Your task to perform on an android device: Clear all items from cart on target. Search for "razer blade" on target, select the first entry, and add it to the cart. Image 0: 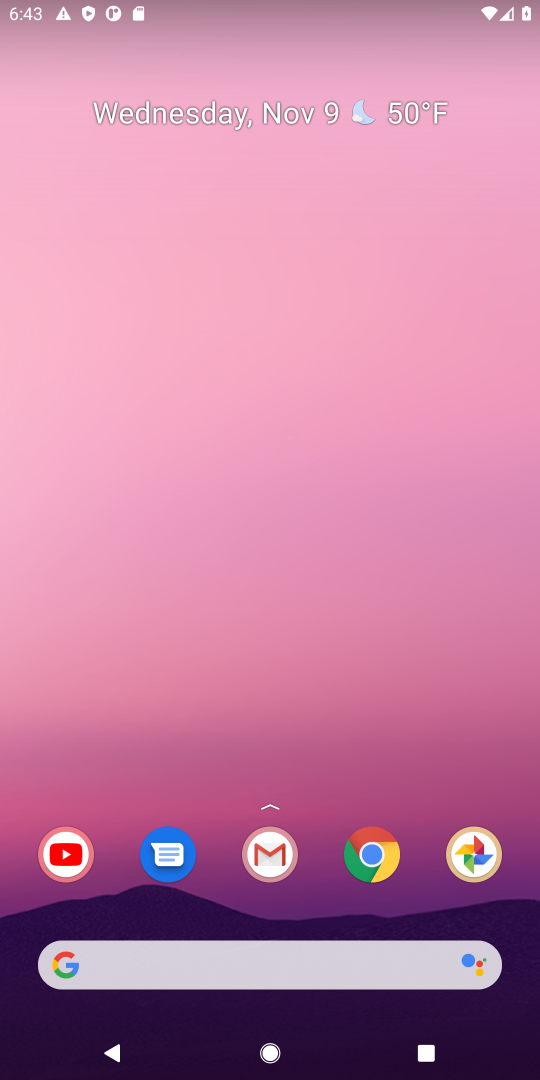
Step 0: click (253, 975)
Your task to perform on an android device: Clear all items from cart on target. Search for "razer blade" on target, select the first entry, and add it to the cart. Image 1: 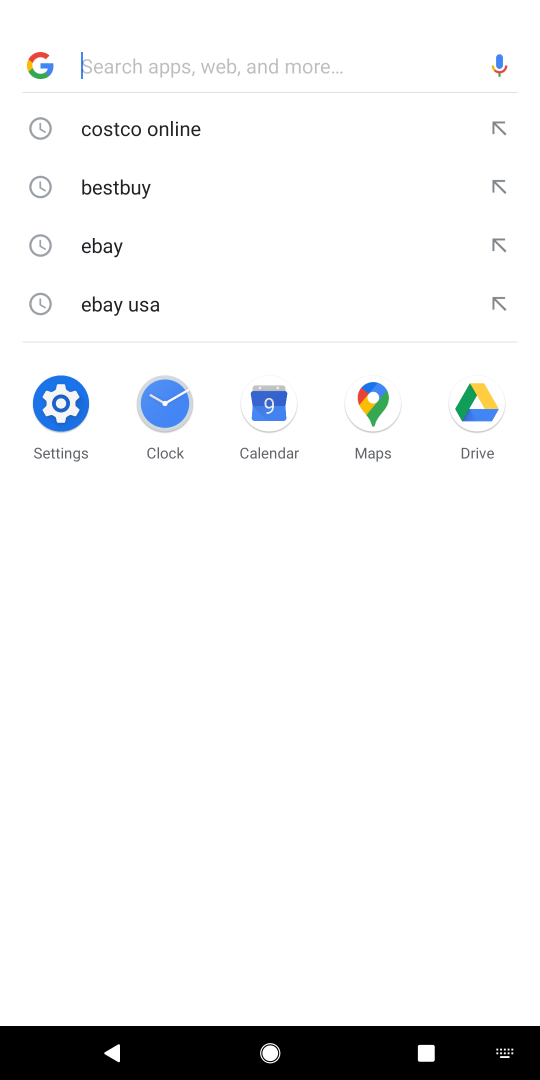
Step 1: type "target"
Your task to perform on an android device: Clear all items from cart on target. Search for "razer blade" on target, select the first entry, and add it to the cart. Image 2: 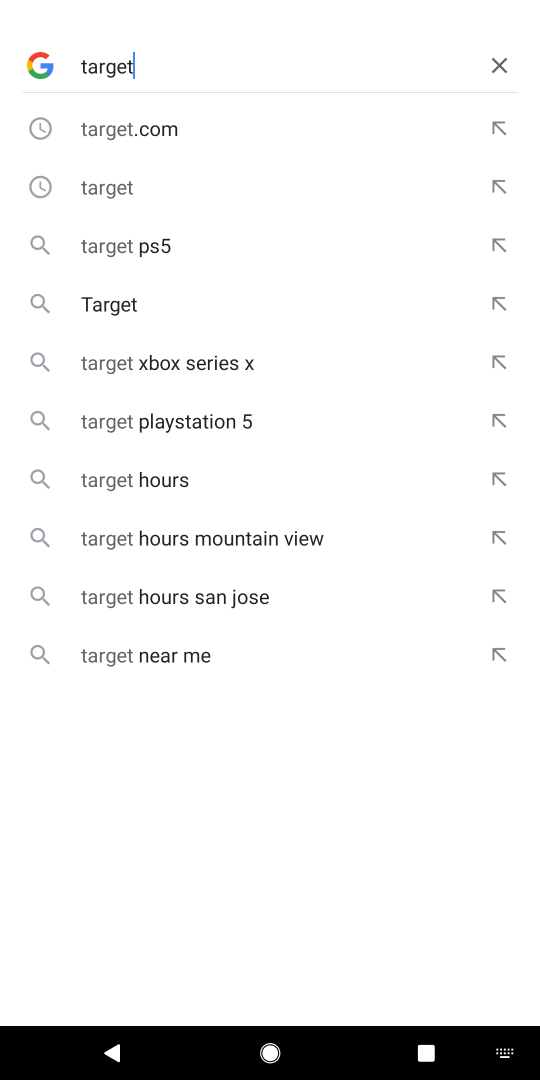
Step 2: click (203, 149)
Your task to perform on an android device: Clear all items from cart on target. Search for "razer blade" on target, select the first entry, and add it to the cart. Image 3: 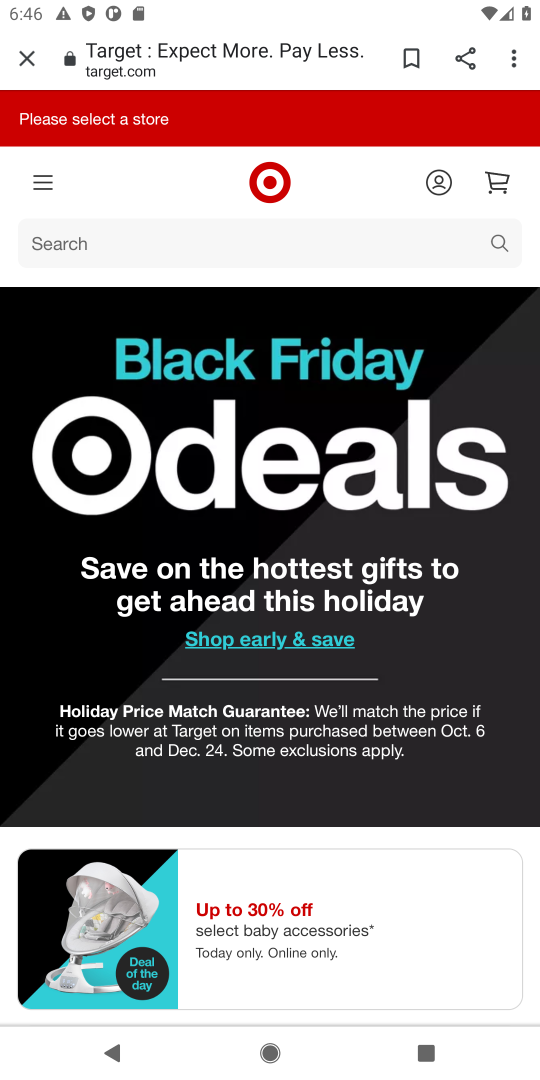
Step 3: task complete